Your task to perform on an android device: turn on notifications settings in the gmail app Image 0: 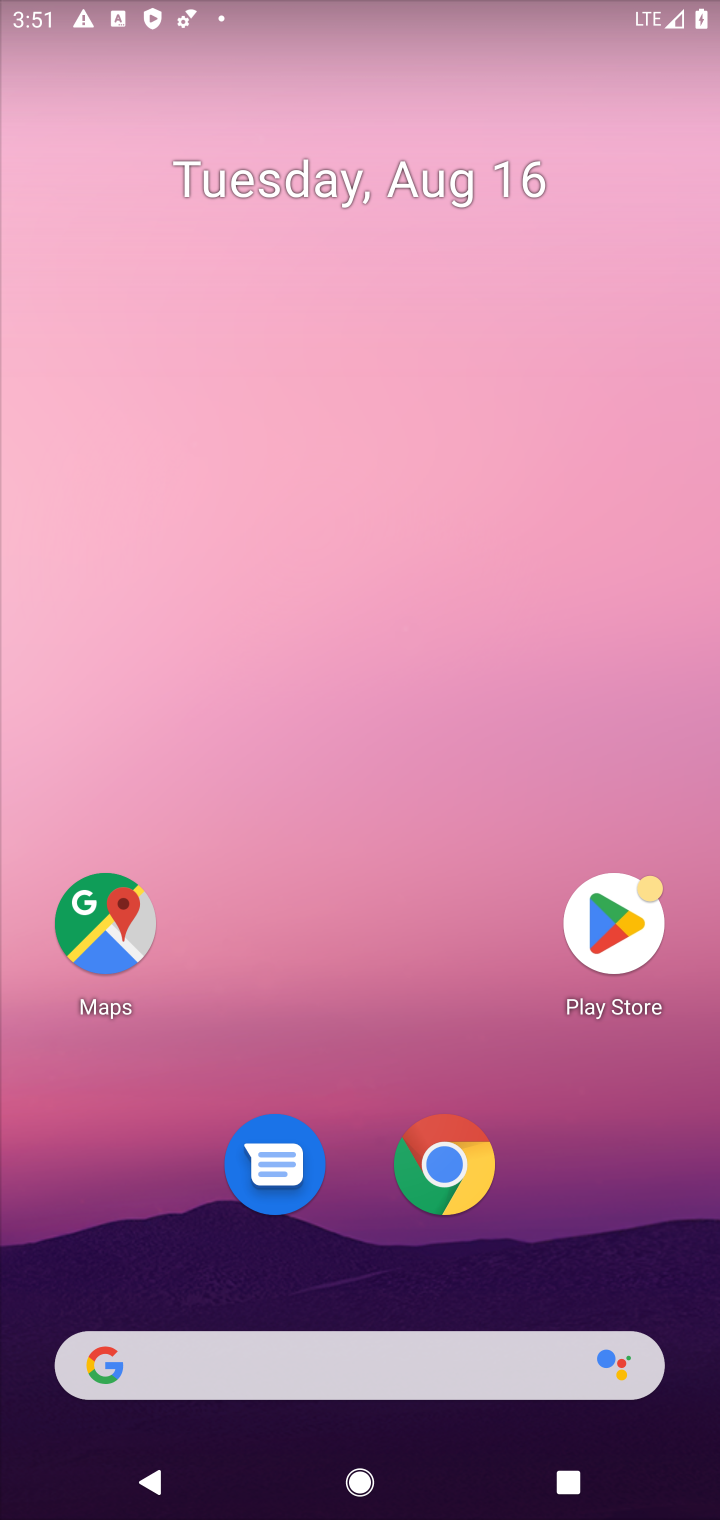
Step 0: drag from (343, 673) to (341, 451)
Your task to perform on an android device: turn on notifications settings in the gmail app Image 1: 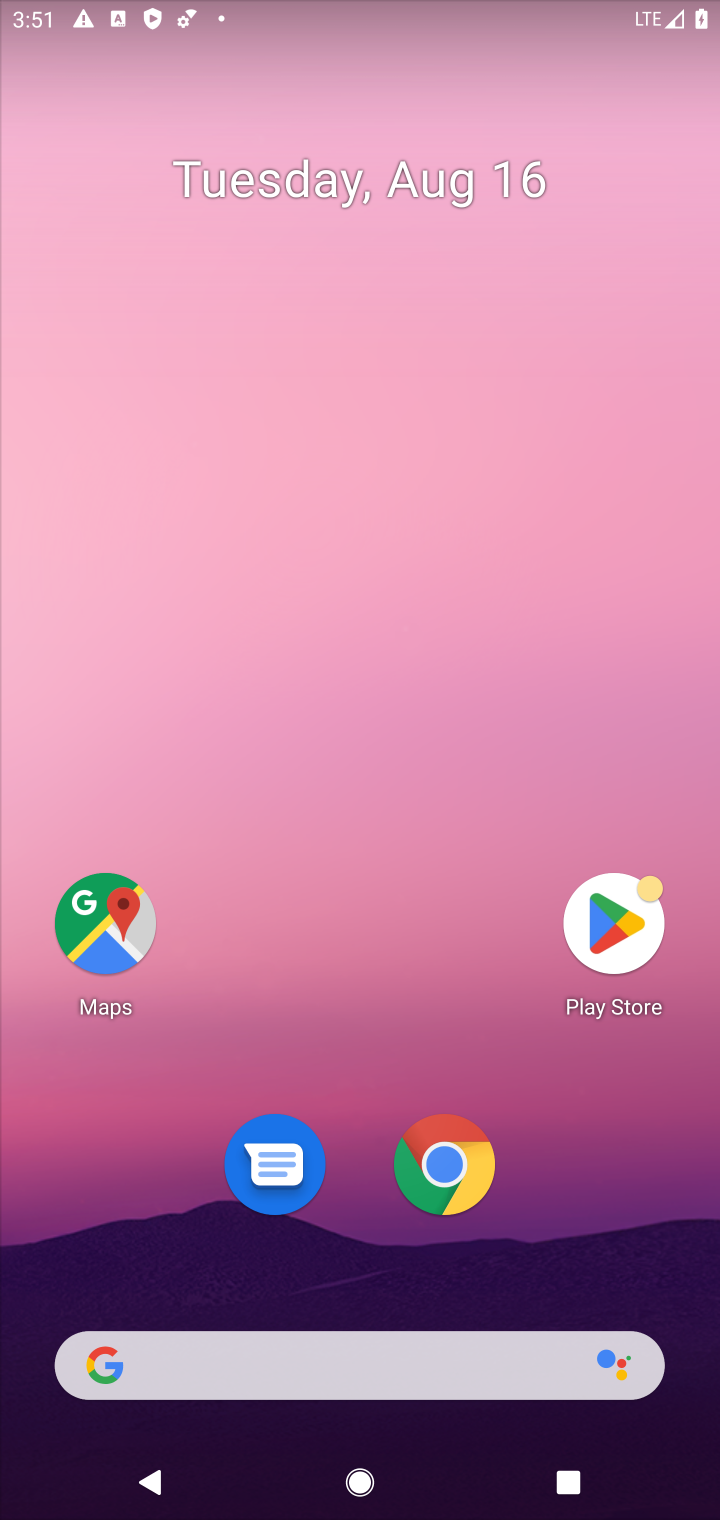
Step 1: drag from (430, 1029) to (424, 791)
Your task to perform on an android device: turn on notifications settings in the gmail app Image 2: 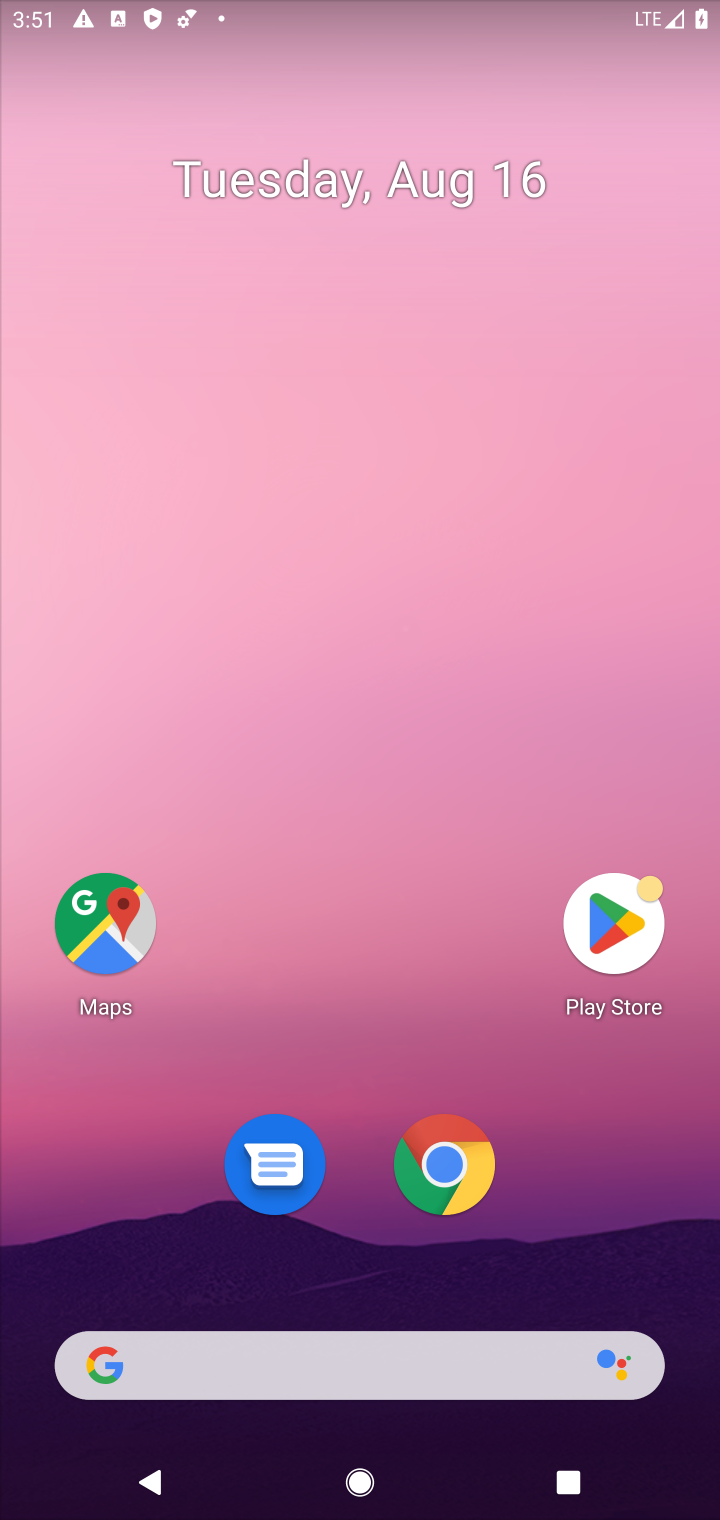
Step 2: drag from (374, 820) to (378, 113)
Your task to perform on an android device: turn on notifications settings in the gmail app Image 3: 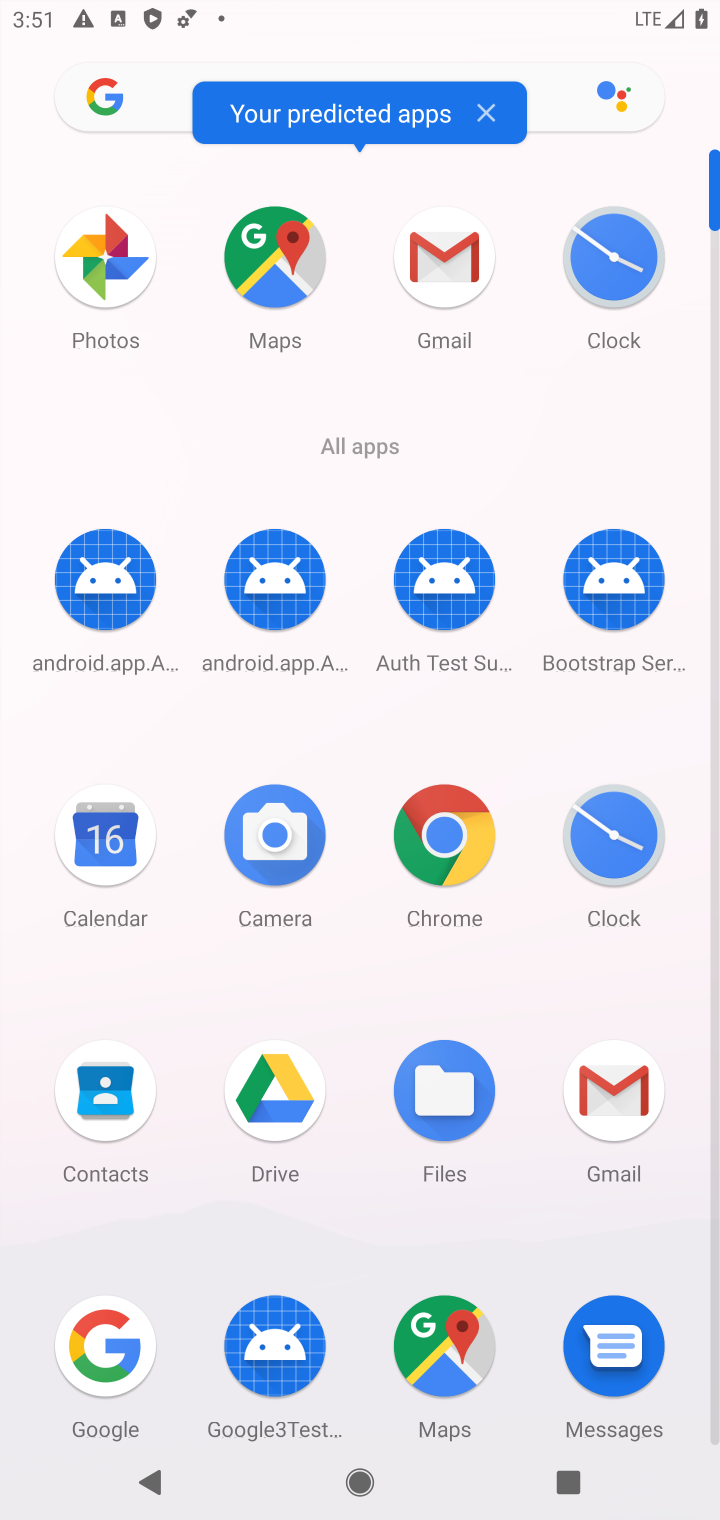
Step 3: click (604, 1083)
Your task to perform on an android device: turn on notifications settings in the gmail app Image 4: 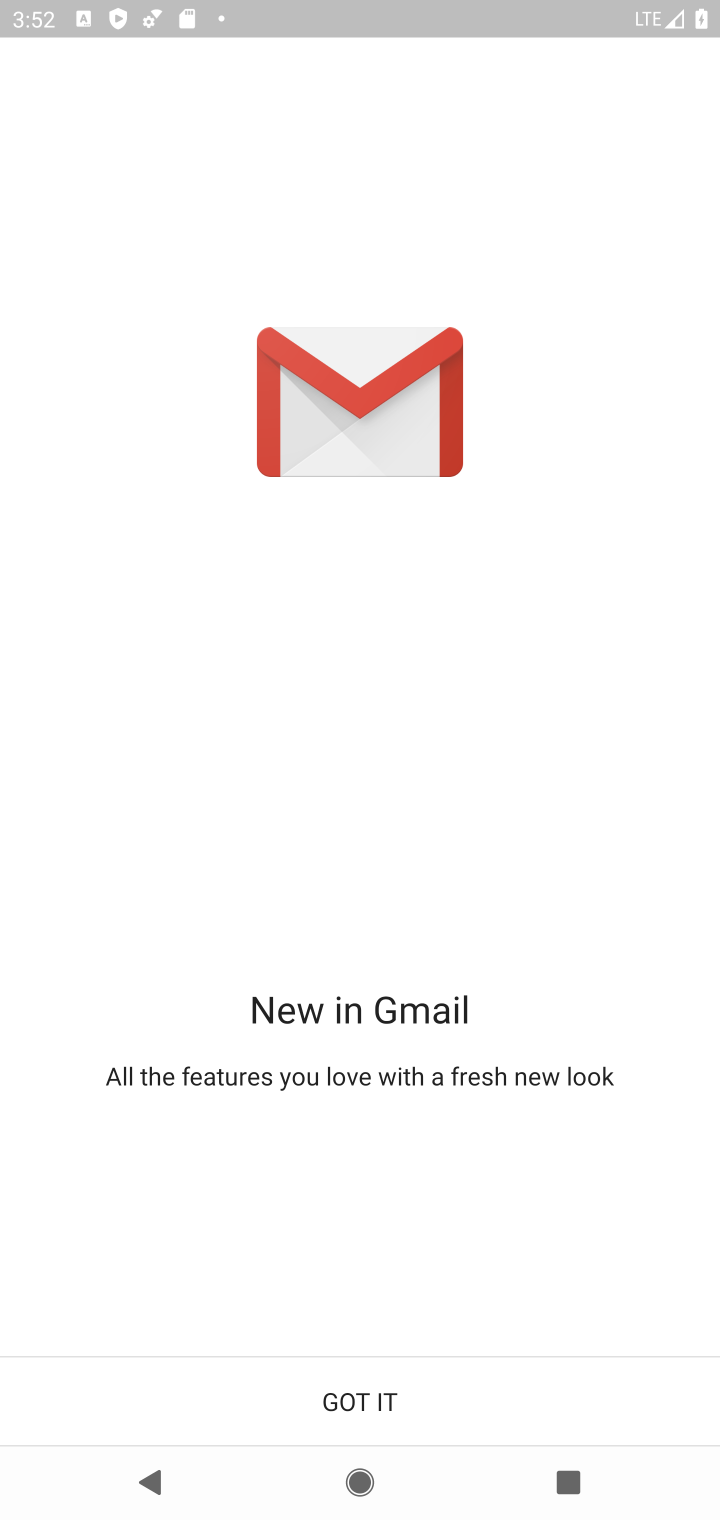
Step 4: click (375, 1412)
Your task to perform on an android device: turn on notifications settings in the gmail app Image 5: 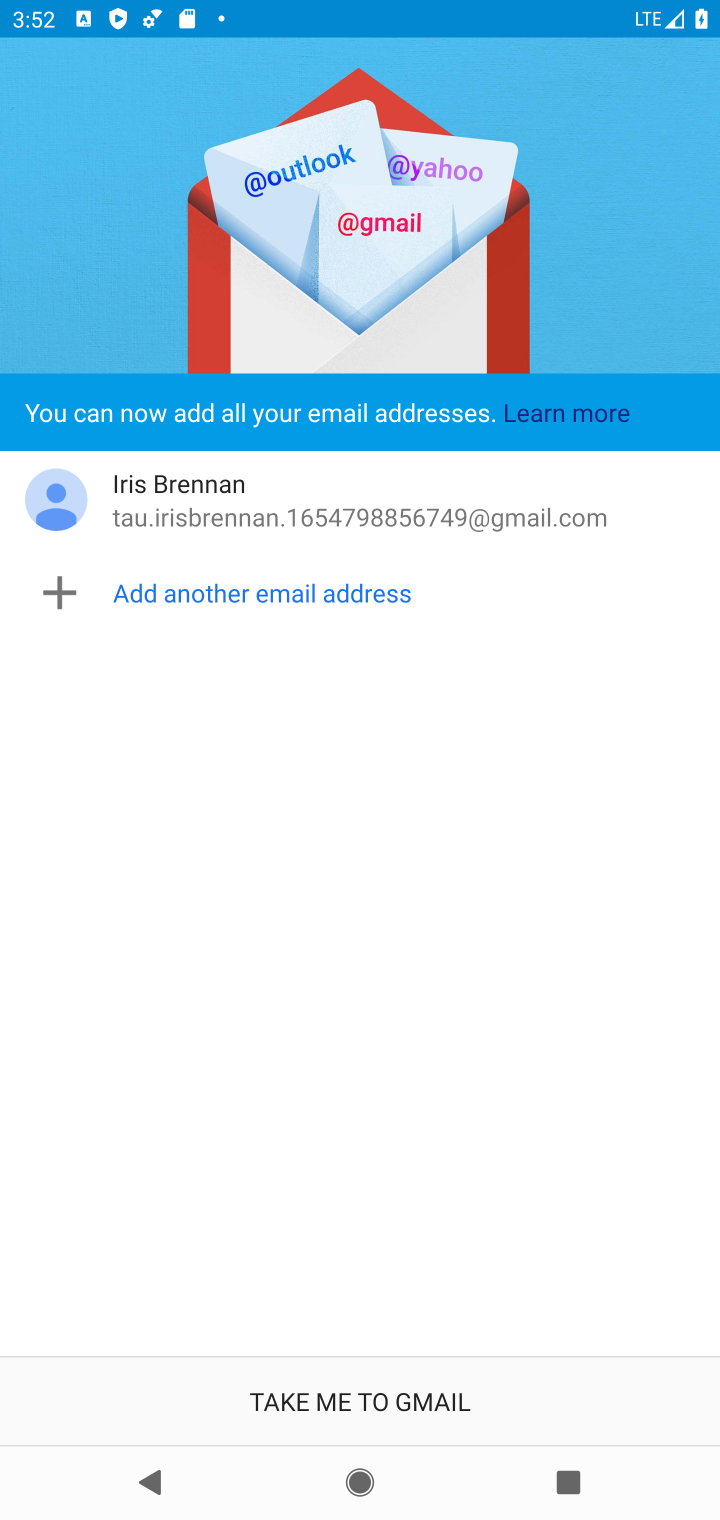
Step 5: click (381, 1411)
Your task to perform on an android device: turn on notifications settings in the gmail app Image 6: 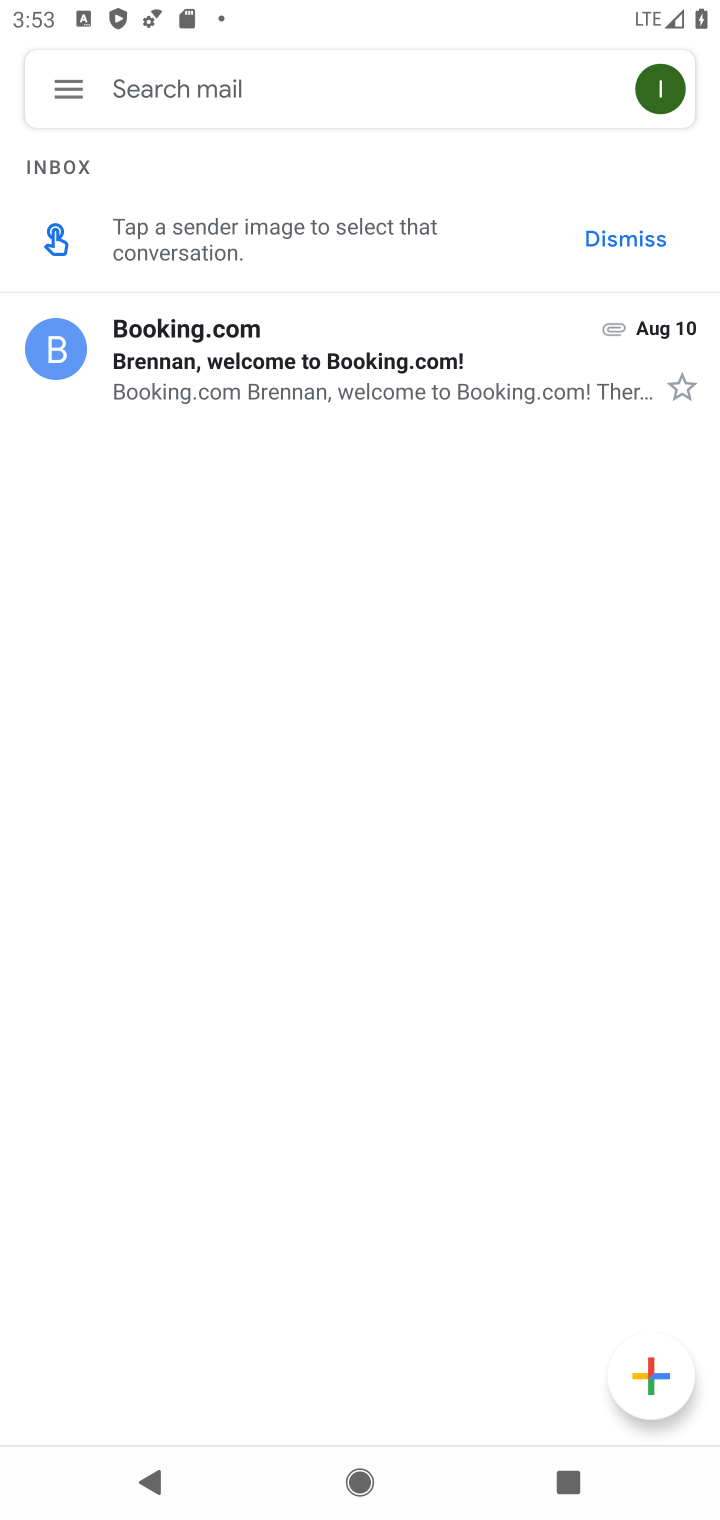
Step 6: click (80, 129)
Your task to perform on an android device: turn on notifications settings in the gmail app Image 7: 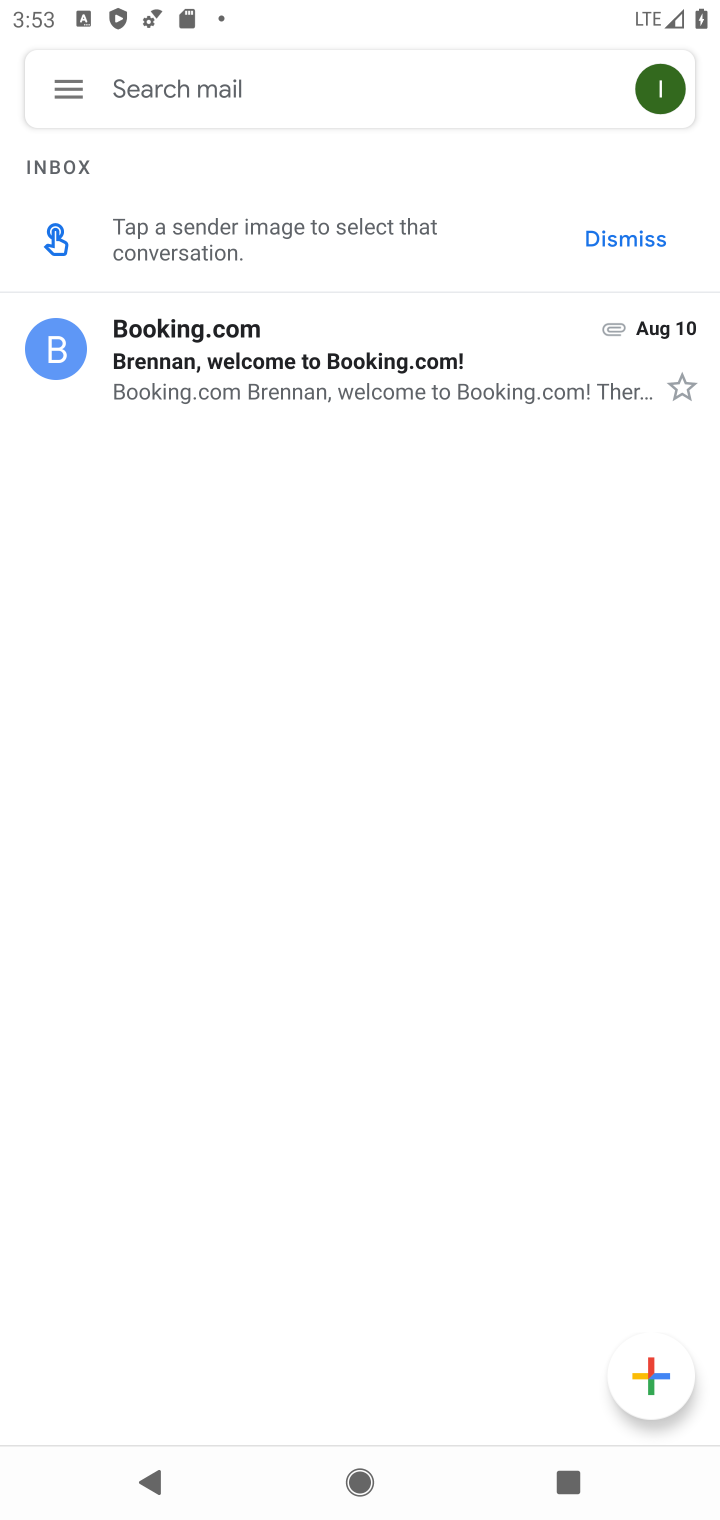
Step 7: click (85, 97)
Your task to perform on an android device: turn on notifications settings in the gmail app Image 8: 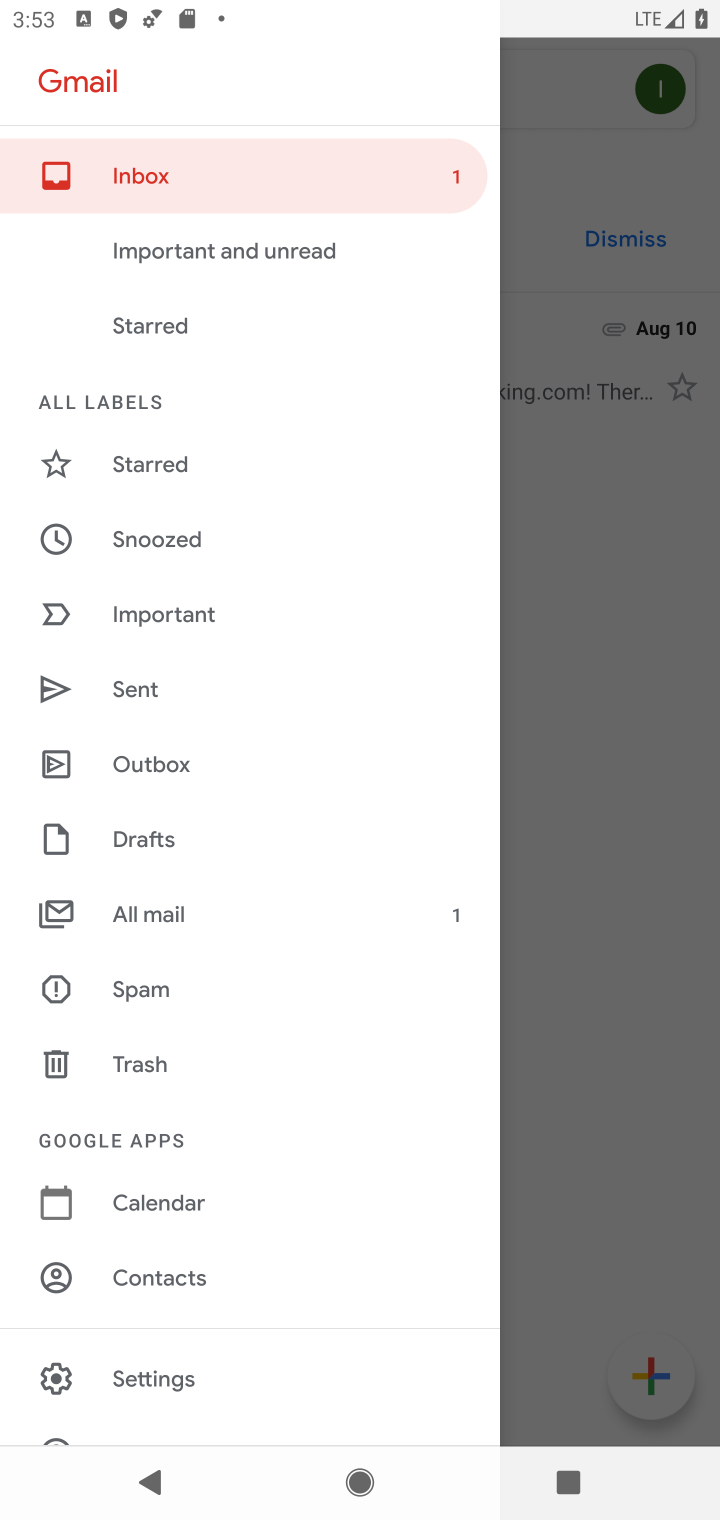
Step 8: click (186, 1370)
Your task to perform on an android device: turn on notifications settings in the gmail app Image 9: 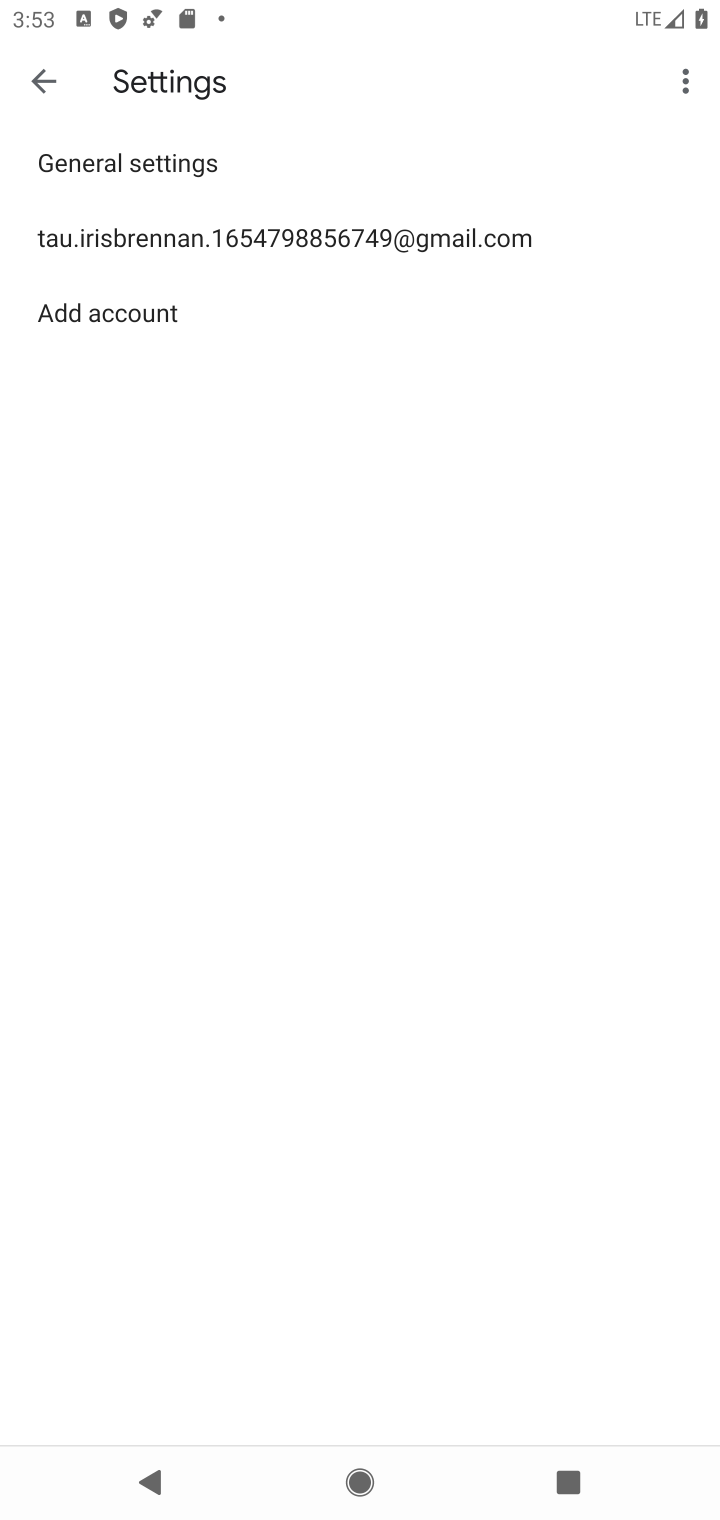
Step 9: click (331, 253)
Your task to perform on an android device: turn on notifications settings in the gmail app Image 10: 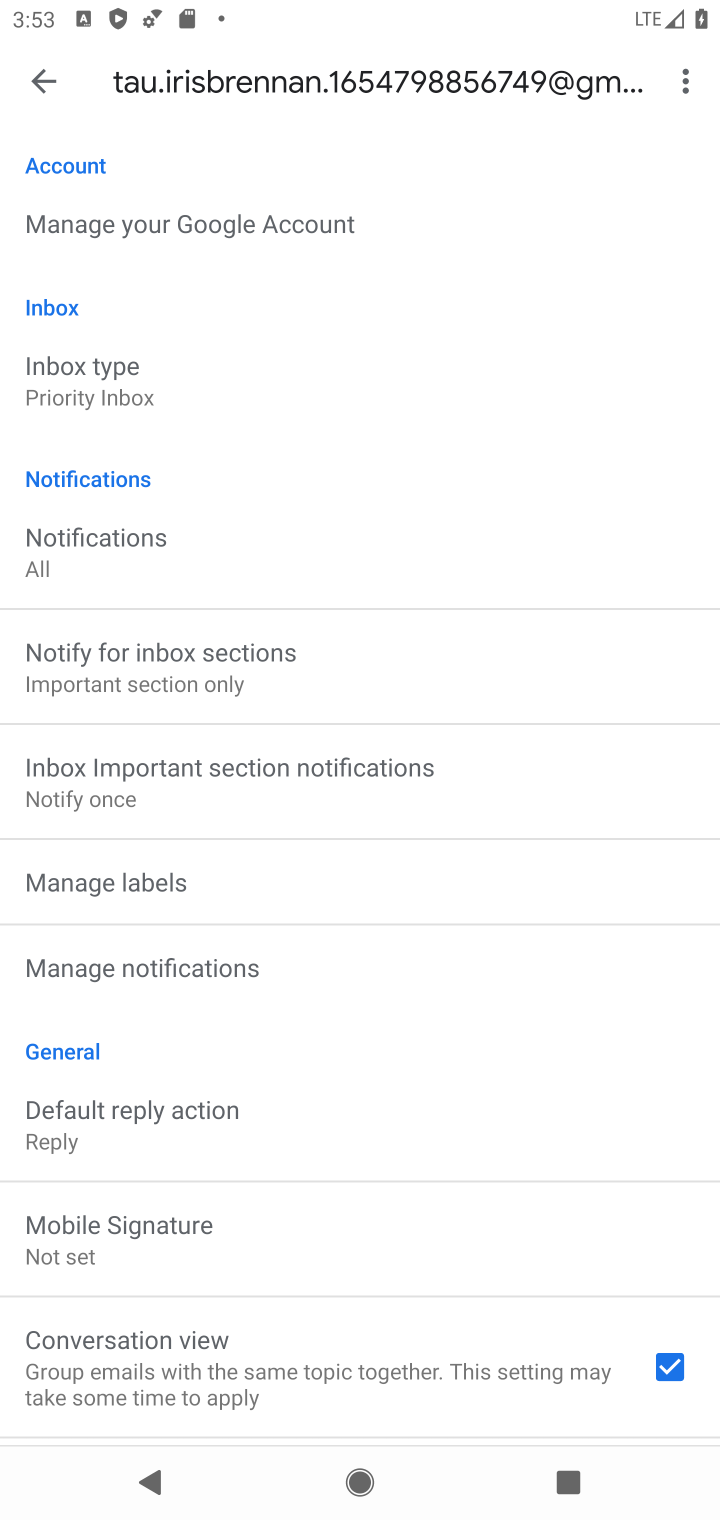
Step 10: click (310, 570)
Your task to perform on an android device: turn on notifications settings in the gmail app Image 11: 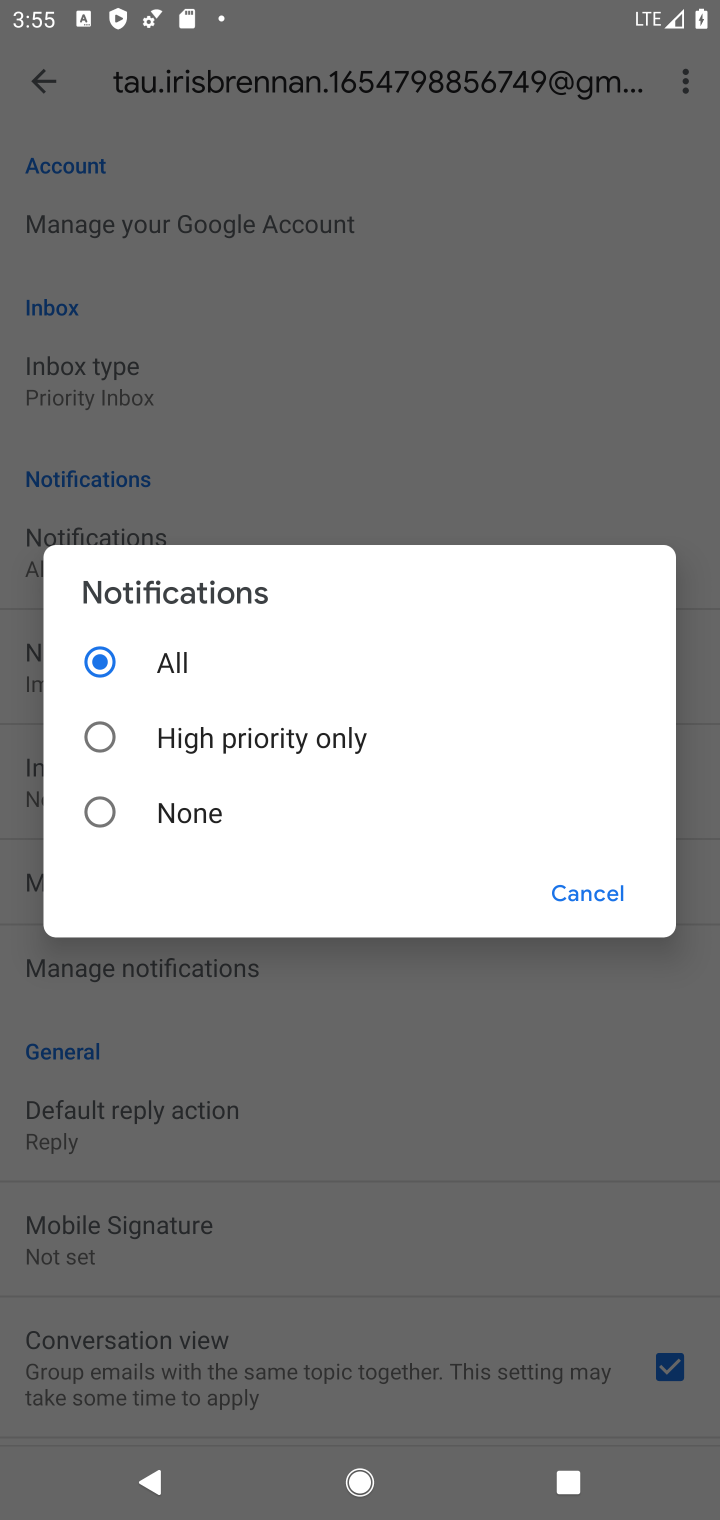
Step 11: task complete